Your task to perform on an android device: Open sound settings Image 0: 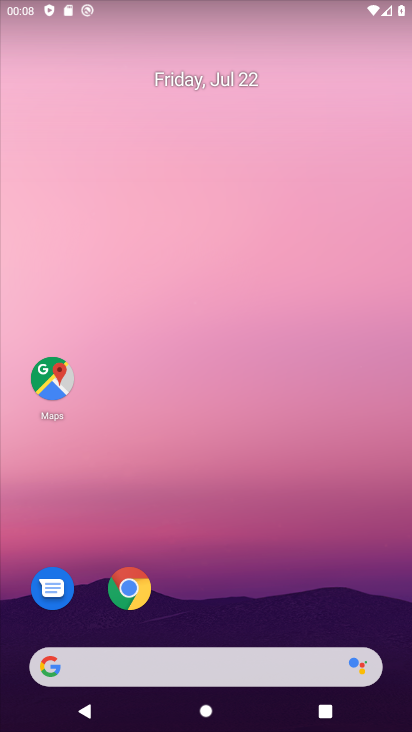
Step 0: drag from (282, 584) to (281, 91)
Your task to perform on an android device: Open sound settings Image 1: 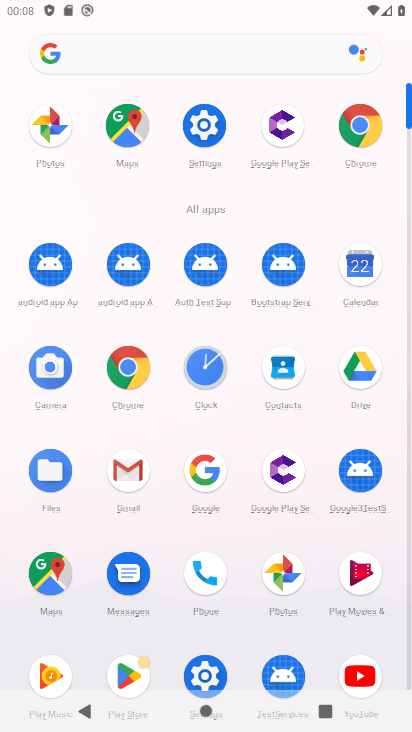
Step 1: click (201, 123)
Your task to perform on an android device: Open sound settings Image 2: 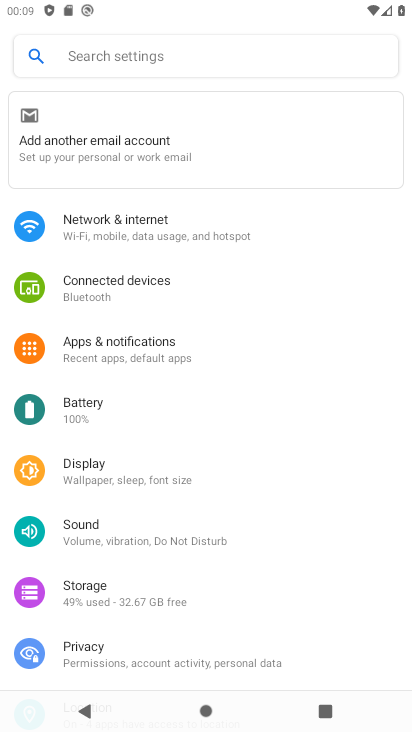
Step 2: click (77, 530)
Your task to perform on an android device: Open sound settings Image 3: 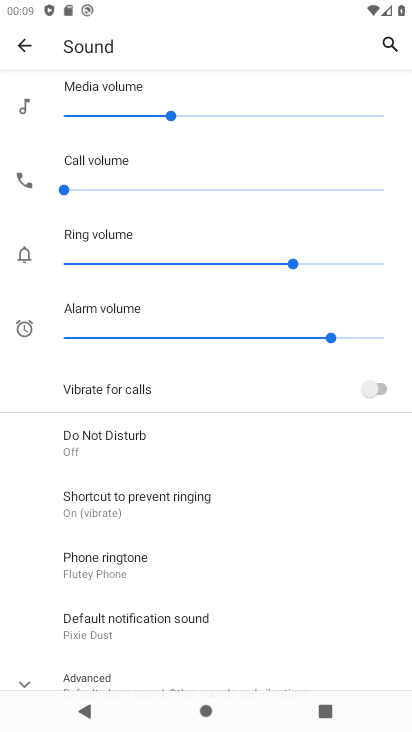
Step 3: task complete